Your task to perform on an android device: move a message to another label in the gmail app Image 0: 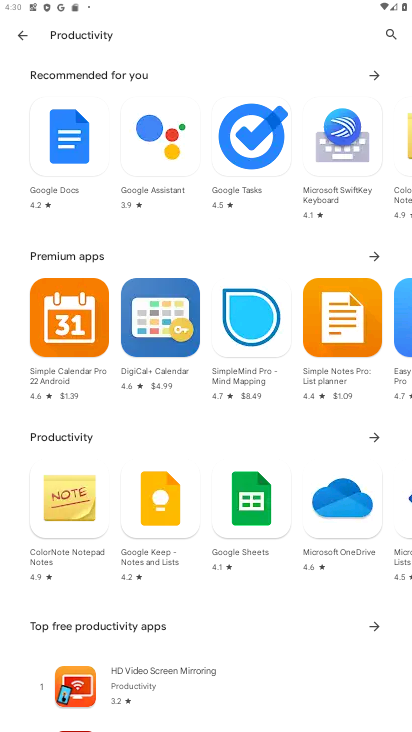
Step 0: press home button
Your task to perform on an android device: move a message to another label in the gmail app Image 1: 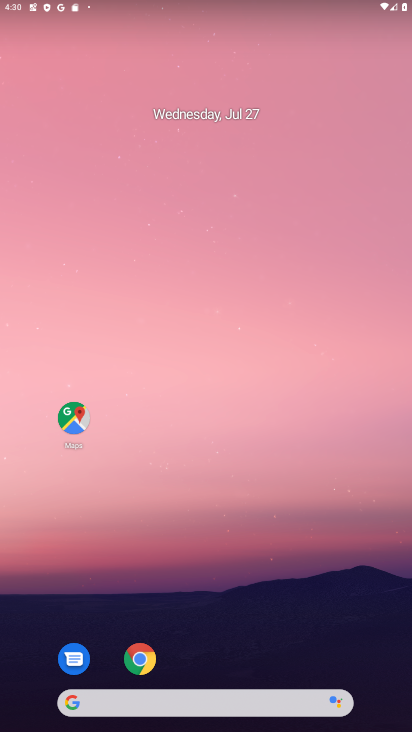
Step 1: drag from (286, 630) to (162, 15)
Your task to perform on an android device: move a message to another label in the gmail app Image 2: 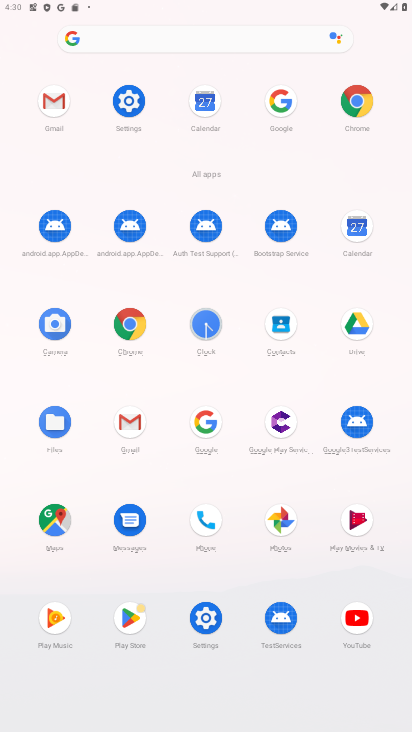
Step 2: click (49, 104)
Your task to perform on an android device: move a message to another label in the gmail app Image 3: 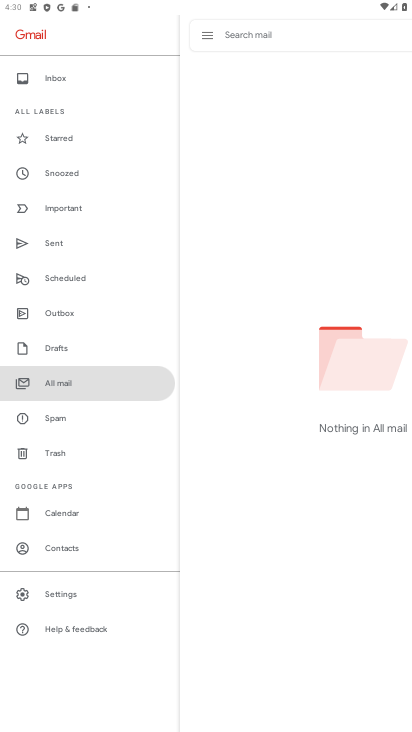
Step 3: task complete